Your task to perform on an android device: turn on location history Image 0: 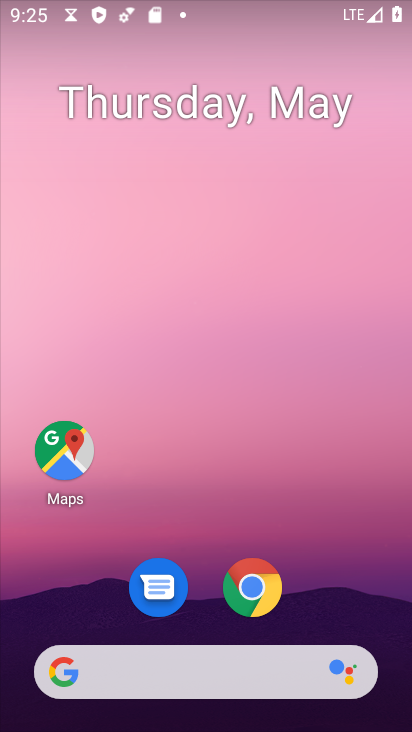
Step 0: click (65, 456)
Your task to perform on an android device: turn on location history Image 1: 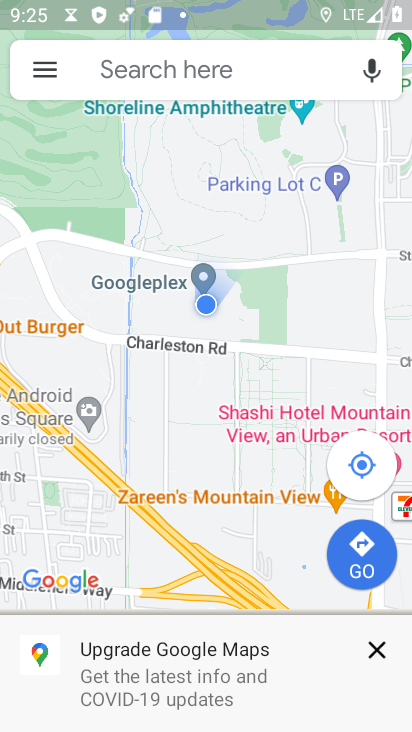
Step 1: click (42, 72)
Your task to perform on an android device: turn on location history Image 2: 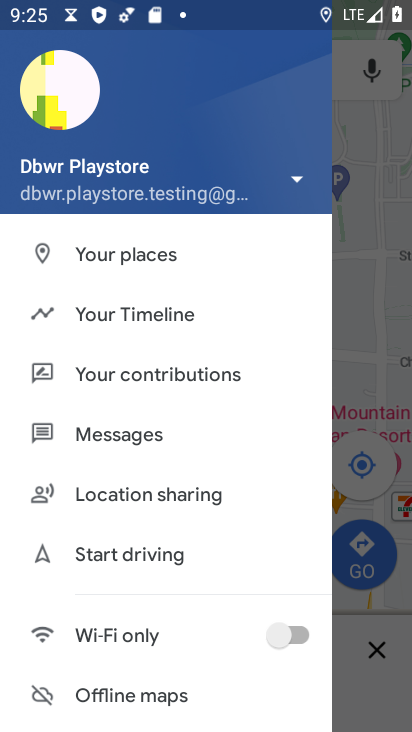
Step 2: click (110, 316)
Your task to perform on an android device: turn on location history Image 3: 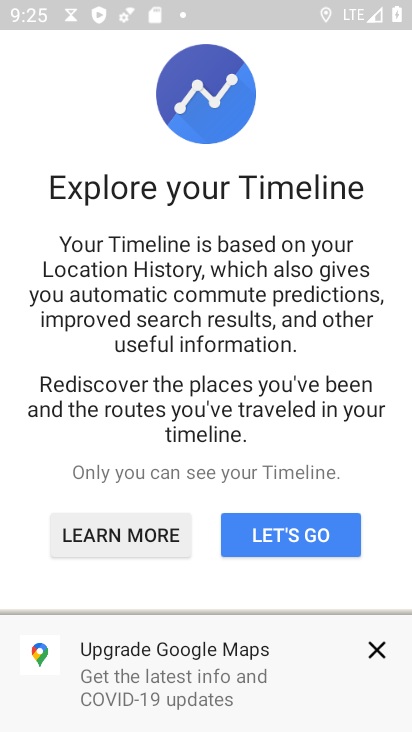
Step 3: click (283, 543)
Your task to perform on an android device: turn on location history Image 4: 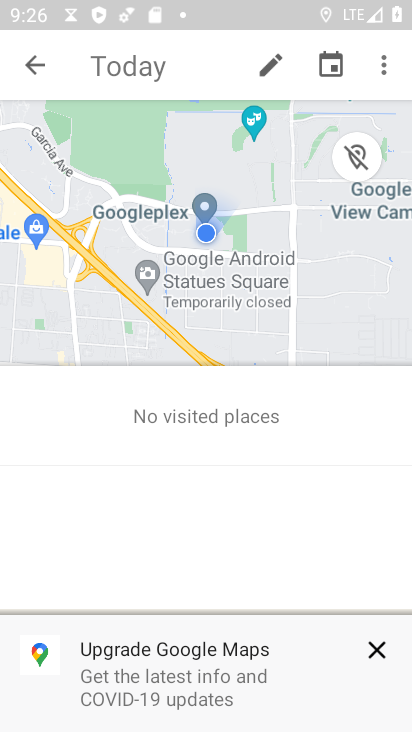
Step 4: click (383, 71)
Your task to perform on an android device: turn on location history Image 5: 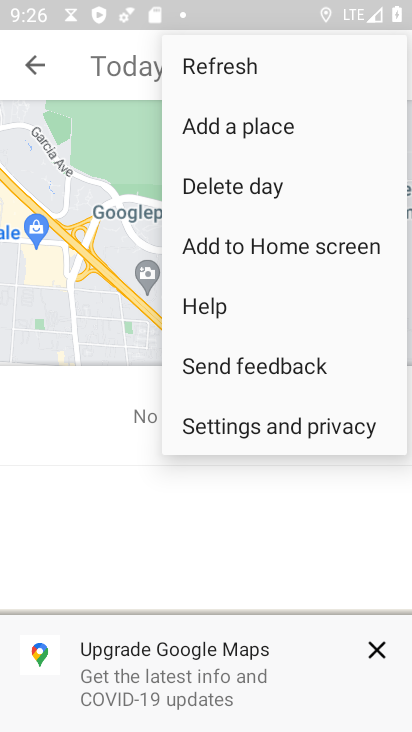
Step 5: click (229, 432)
Your task to perform on an android device: turn on location history Image 6: 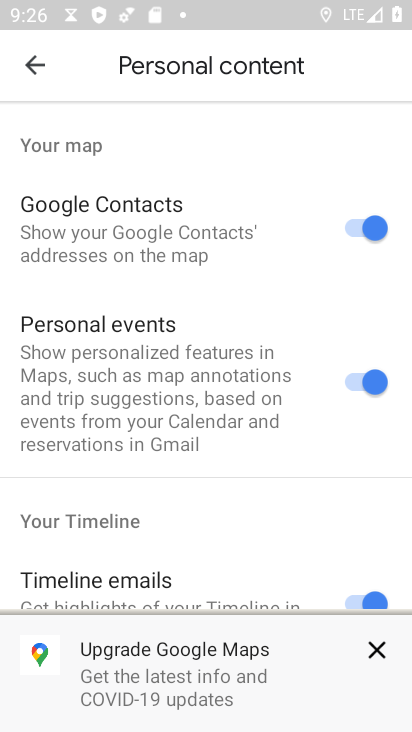
Step 6: drag from (132, 565) to (127, 121)
Your task to perform on an android device: turn on location history Image 7: 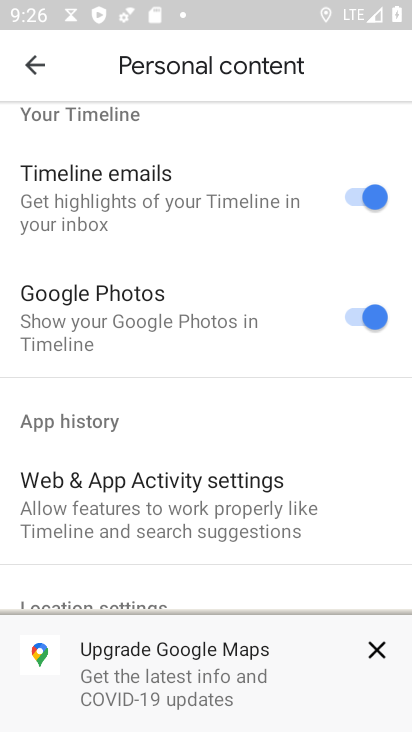
Step 7: drag from (147, 513) to (152, 31)
Your task to perform on an android device: turn on location history Image 8: 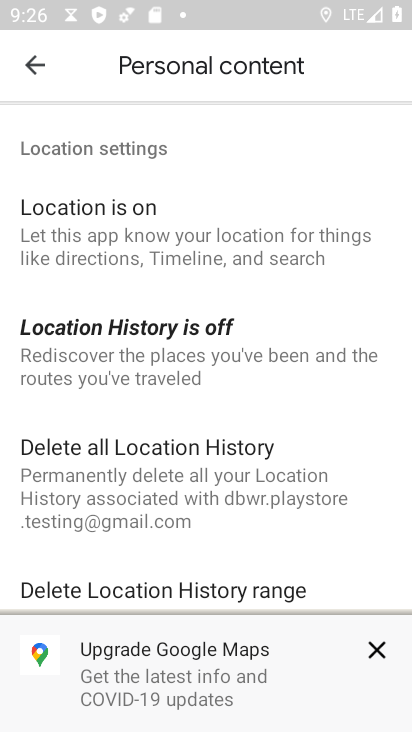
Step 8: click (110, 348)
Your task to perform on an android device: turn on location history Image 9: 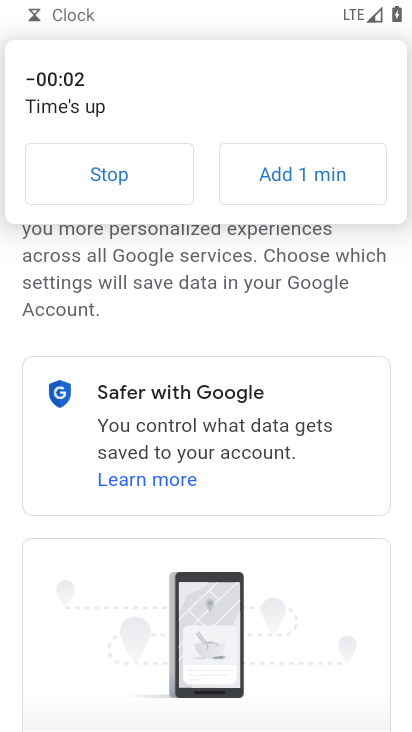
Step 9: click (115, 180)
Your task to perform on an android device: turn on location history Image 10: 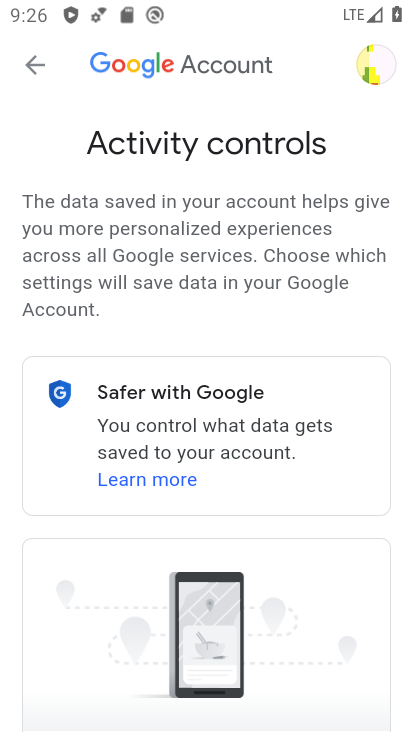
Step 10: drag from (300, 594) to (297, 102)
Your task to perform on an android device: turn on location history Image 11: 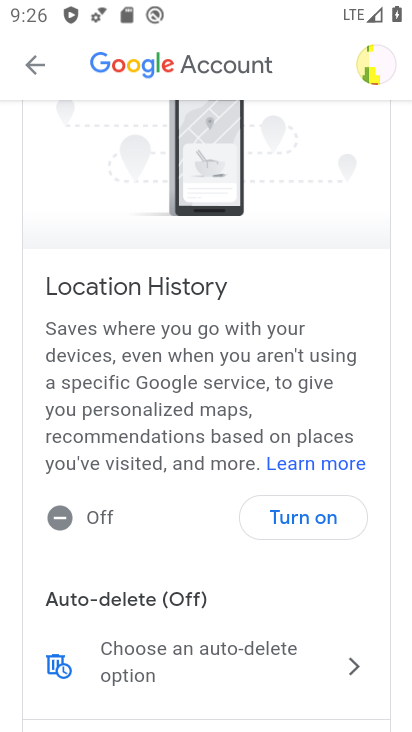
Step 11: click (308, 523)
Your task to perform on an android device: turn on location history Image 12: 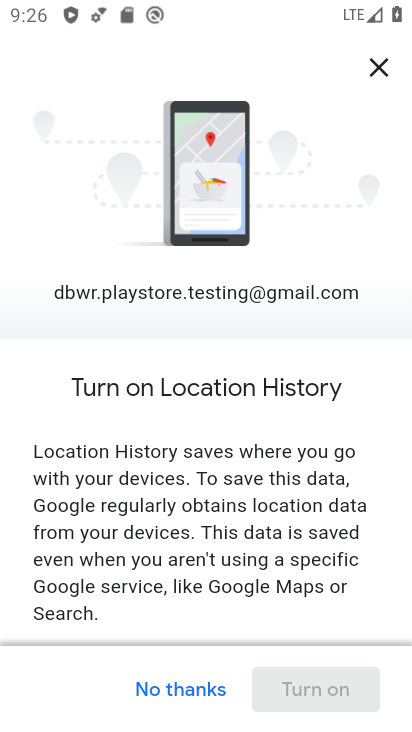
Step 12: drag from (229, 591) to (204, 59)
Your task to perform on an android device: turn on location history Image 13: 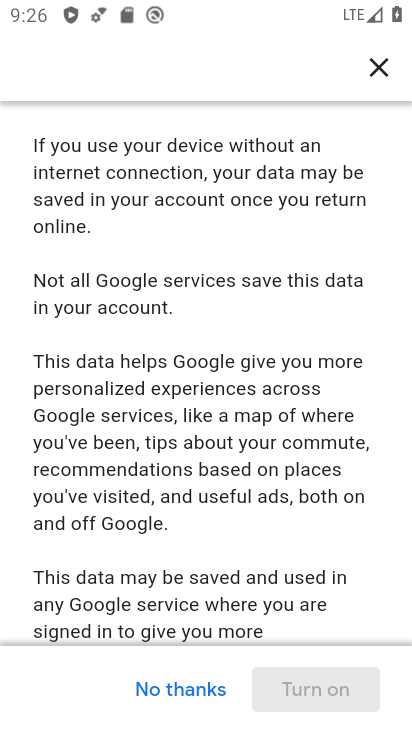
Step 13: drag from (180, 578) to (175, 110)
Your task to perform on an android device: turn on location history Image 14: 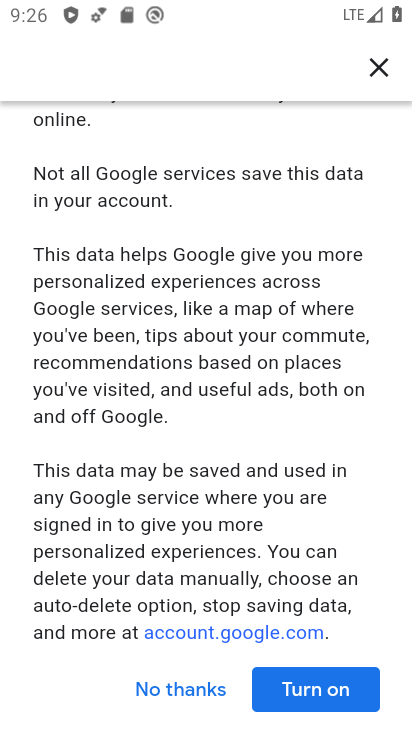
Step 14: click (319, 679)
Your task to perform on an android device: turn on location history Image 15: 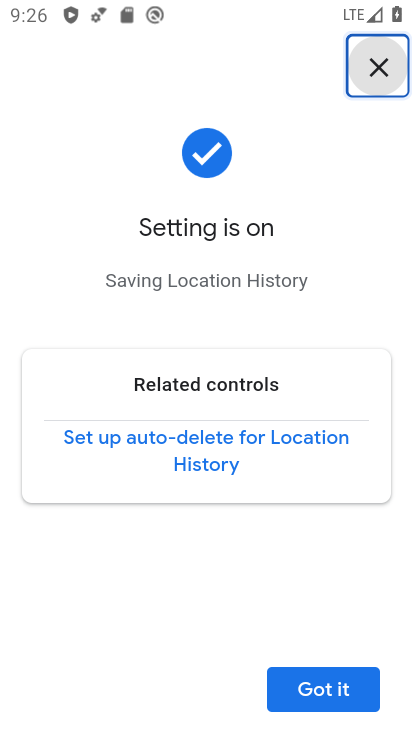
Step 15: click (327, 700)
Your task to perform on an android device: turn on location history Image 16: 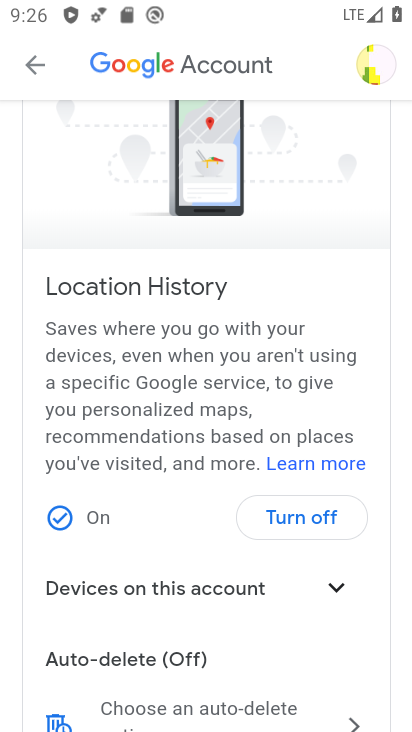
Step 16: task complete